Your task to perform on an android device: turn notification dots off Image 0: 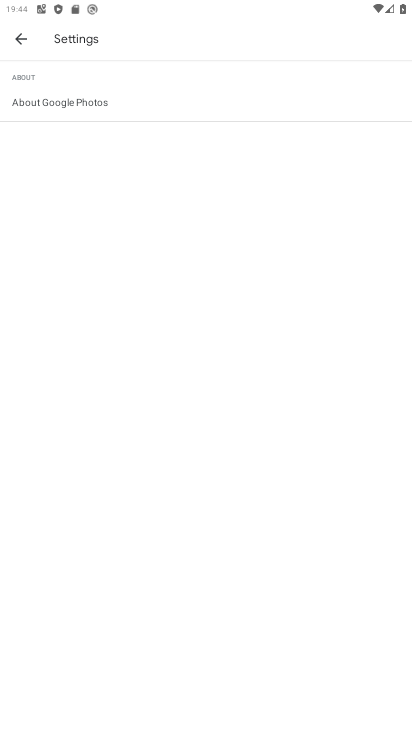
Step 0: press home button
Your task to perform on an android device: turn notification dots off Image 1: 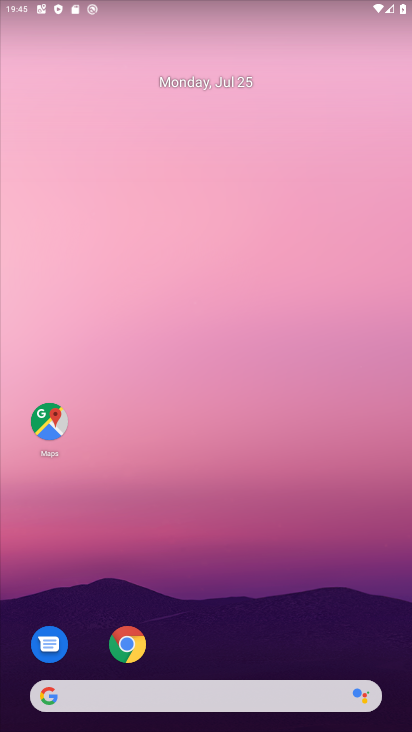
Step 1: drag from (227, 644) to (277, 18)
Your task to perform on an android device: turn notification dots off Image 2: 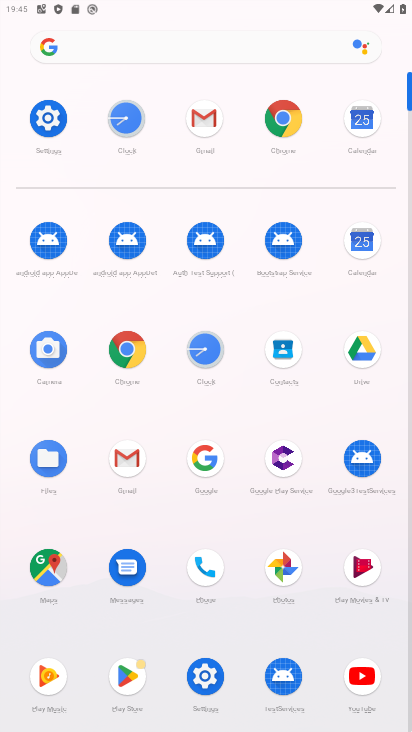
Step 2: click (45, 118)
Your task to perform on an android device: turn notification dots off Image 3: 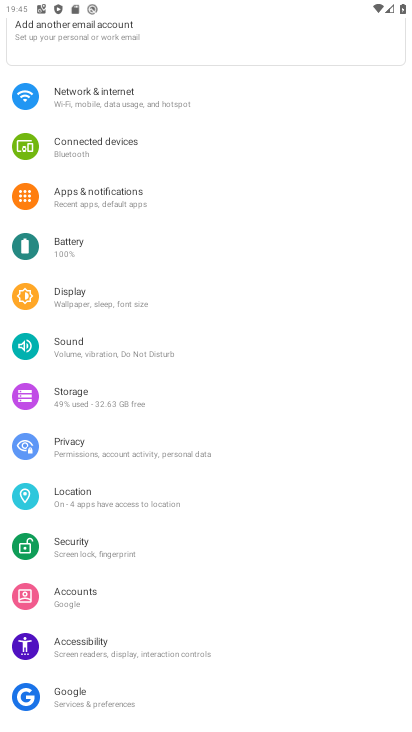
Step 3: click (119, 193)
Your task to perform on an android device: turn notification dots off Image 4: 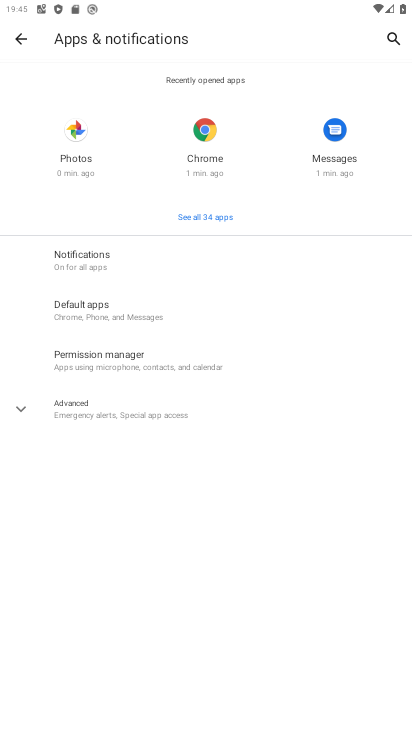
Step 4: click (17, 407)
Your task to perform on an android device: turn notification dots off Image 5: 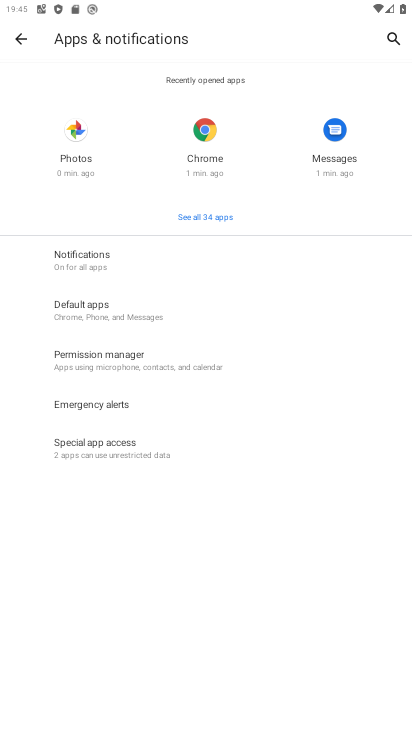
Step 5: click (112, 258)
Your task to perform on an android device: turn notification dots off Image 6: 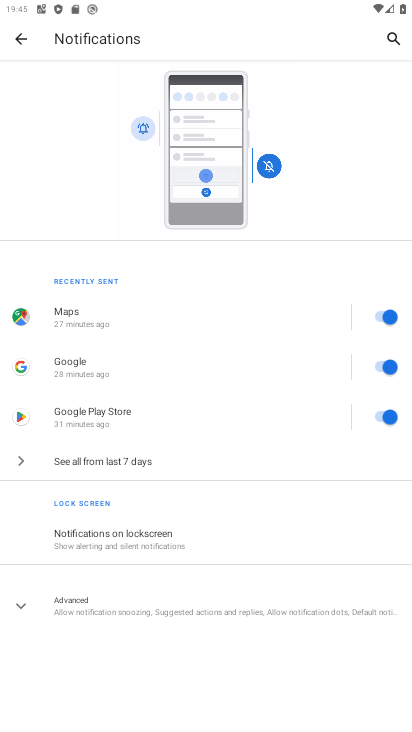
Step 6: click (19, 599)
Your task to perform on an android device: turn notification dots off Image 7: 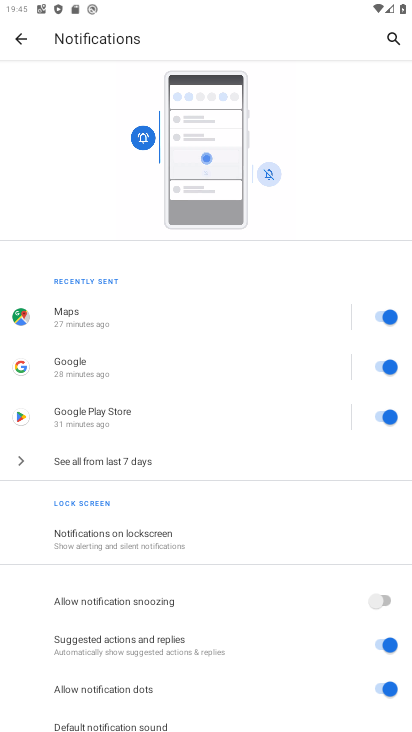
Step 7: click (382, 685)
Your task to perform on an android device: turn notification dots off Image 8: 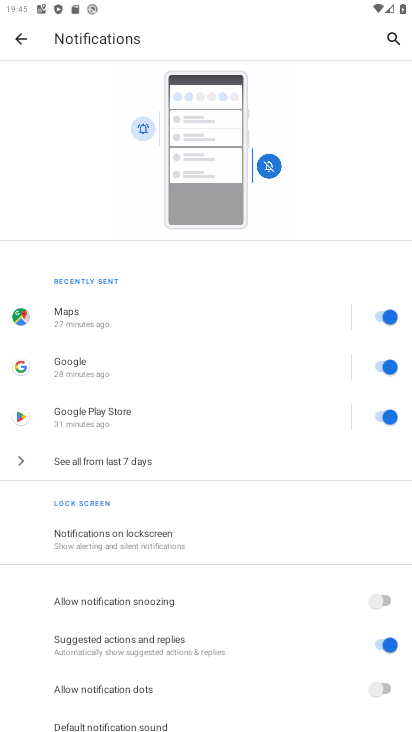
Step 8: task complete